Your task to perform on an android device: add a label to a message in the gmail app Image 0: 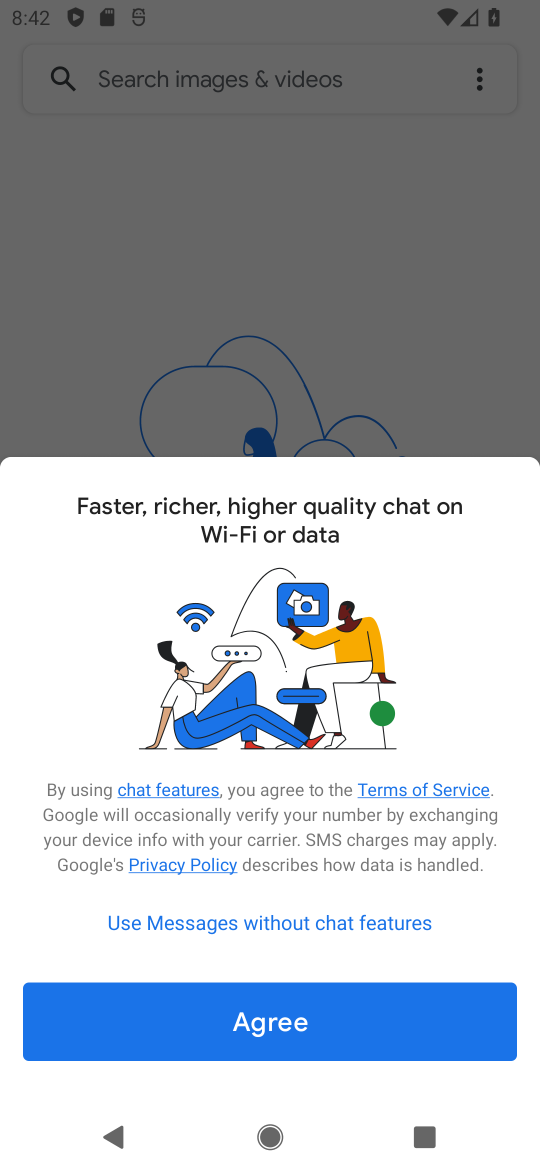
Step 0: press home button
Your task to perform on an android device: add a label to a message in the gmail app Image 1: 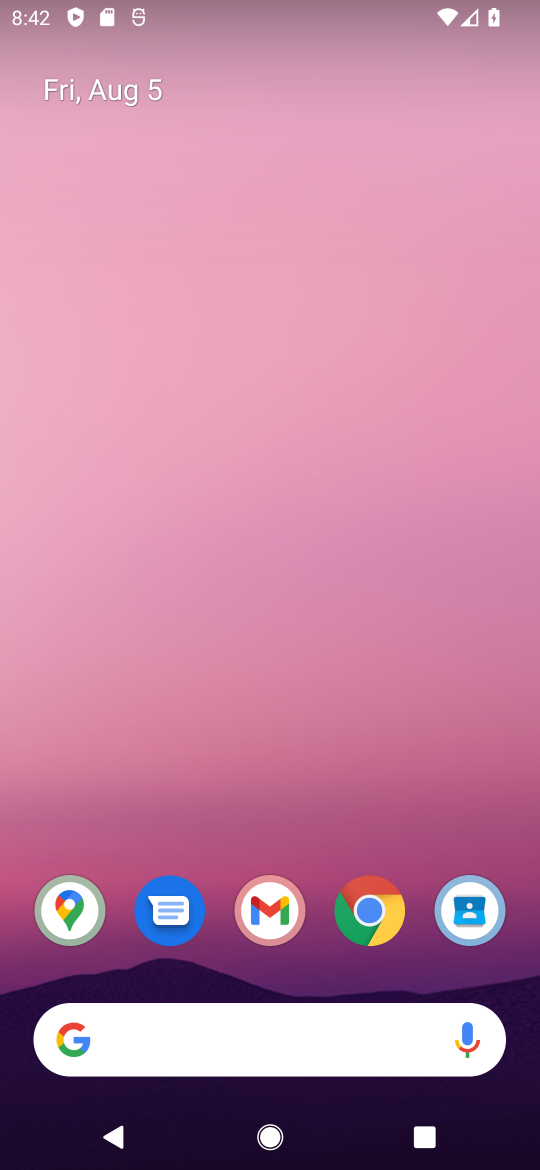
Step 1: click (272, 913)
Your task to perform on an android device: add a label to a message in the gmail app Image 2: 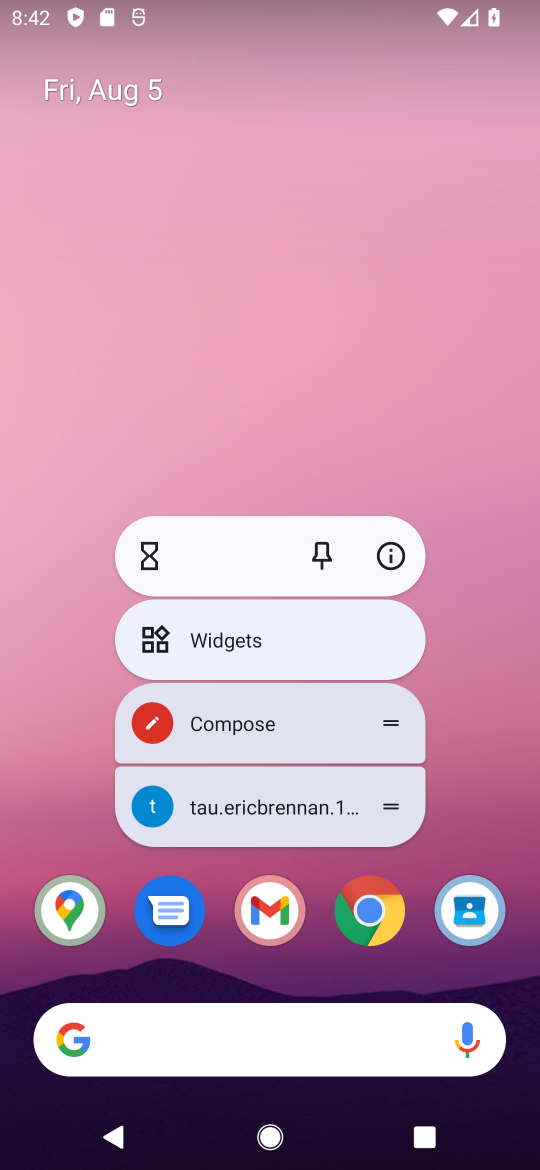
Step 2: click (272, 912)
Your task to perform on an android device: add a label to a message in the gmail app Image 3: 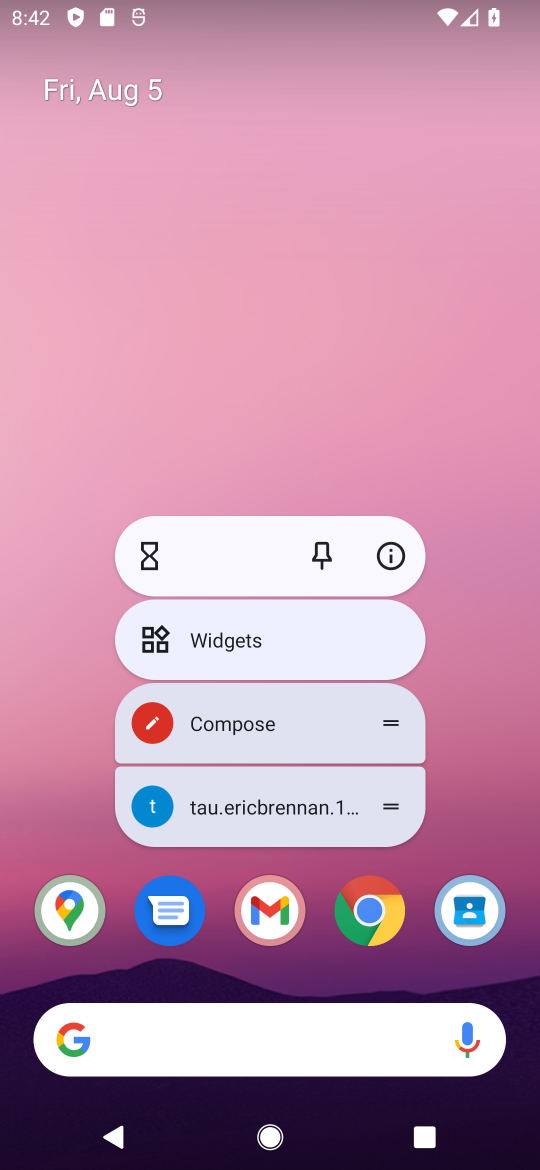
Step 3: click (272, 912)
Your task to perform on an android device: add a label to a message in the gmail app Image 4: 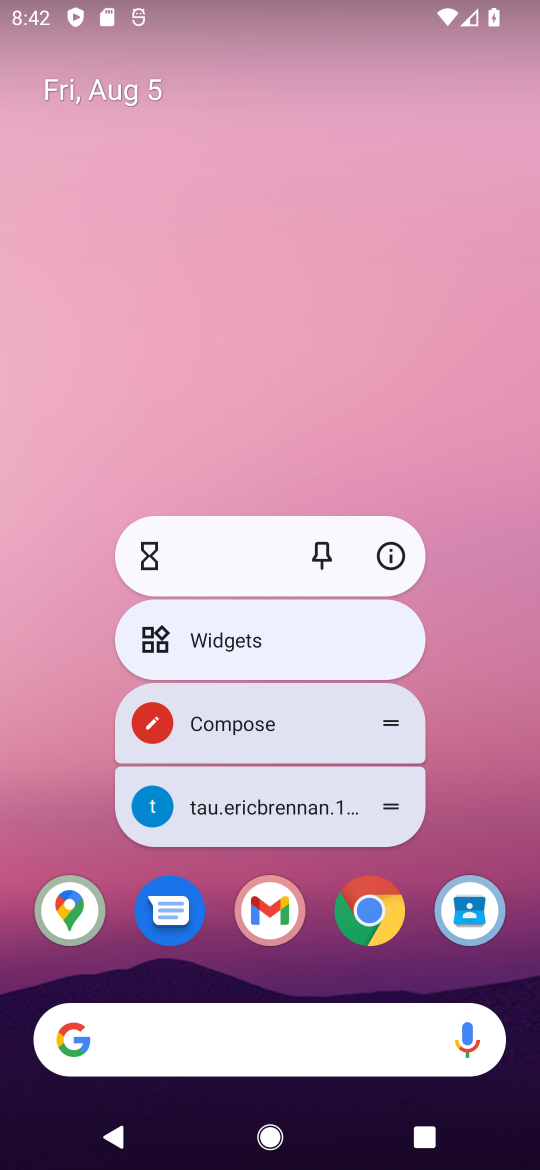
Step 4: click (272, 913)
Your task to perform on an android device: add a label to a message in the gmail app Image 5: 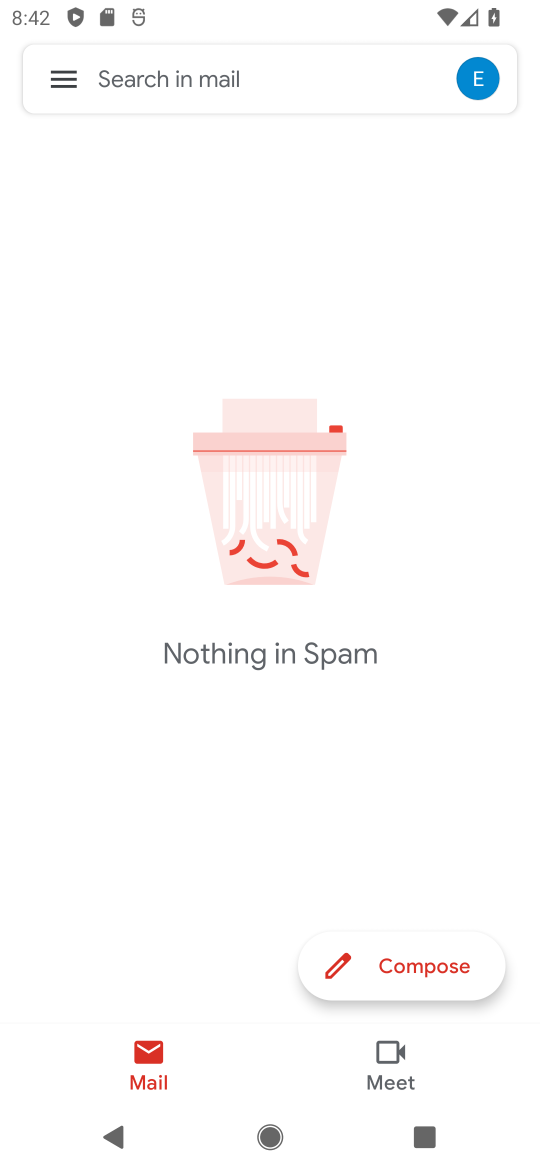
Step 5: click (74, 74)
Your task to perform on an android device: add a label to a message in the gmail app Image 6: 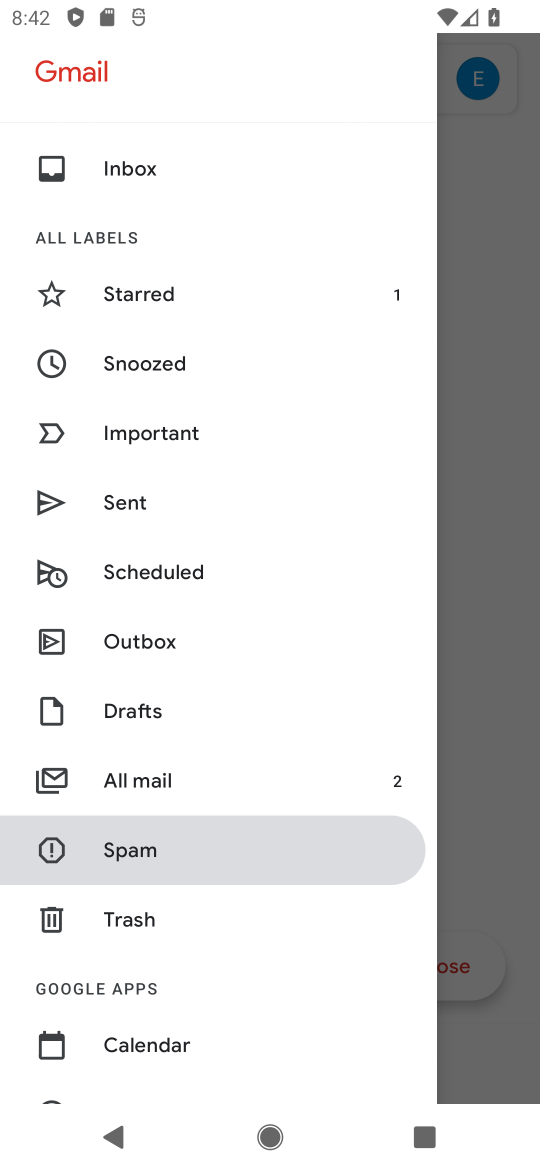
Step 6: click (158, 762)
Your task to perform on an android device: add a label to a message in the gmail app Image 7: 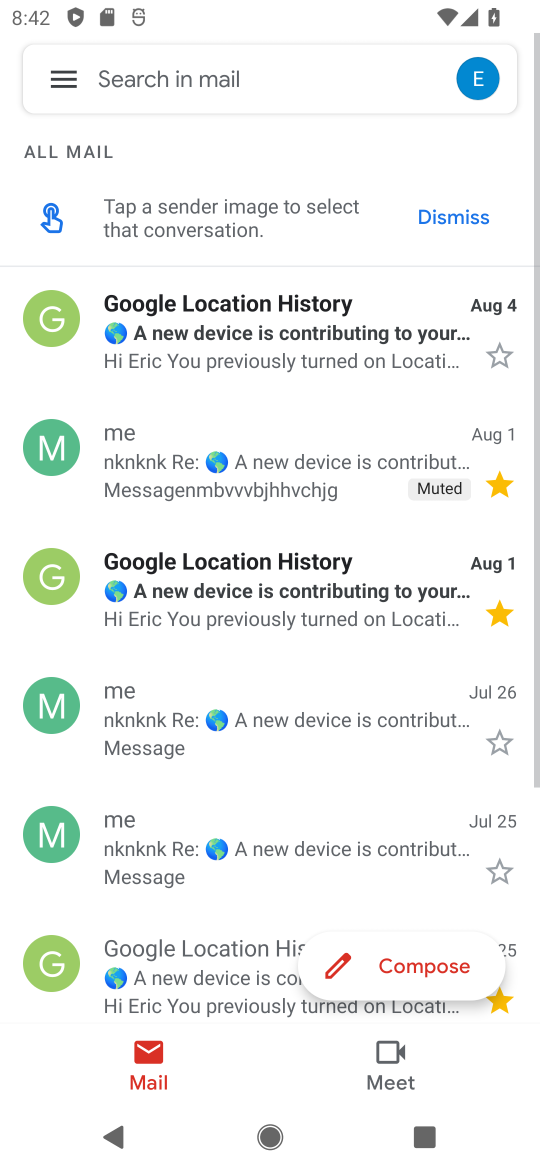
Step 7: click (263, 345)
Your task to perform on an android device: add a label to a message in the gmail app Image 8: 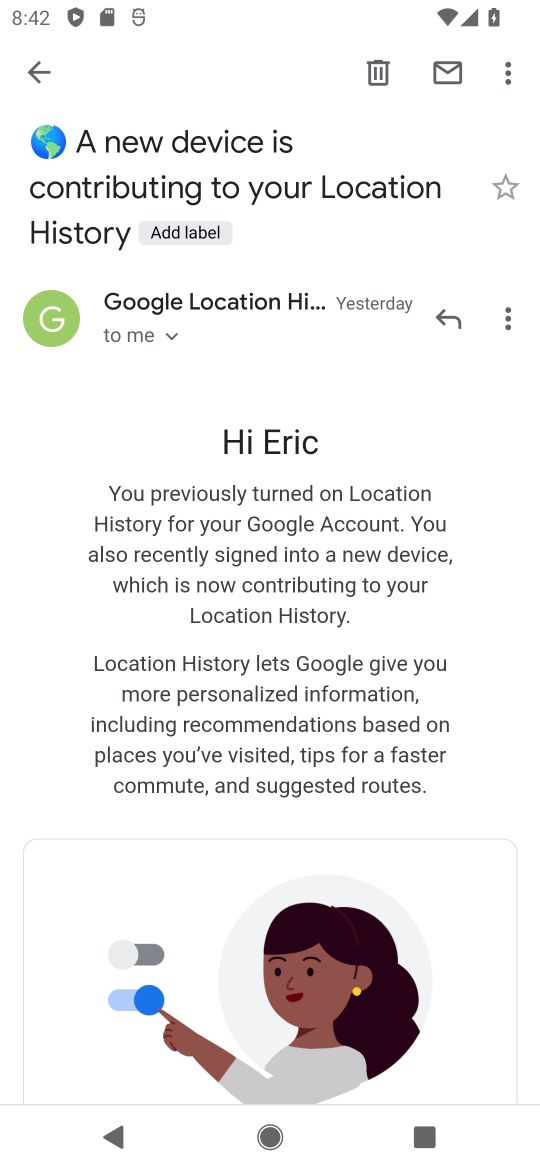
Step 8: click (193, 233)
Your task to perform on an android device: add a label to a message in the gmail app Image 9: 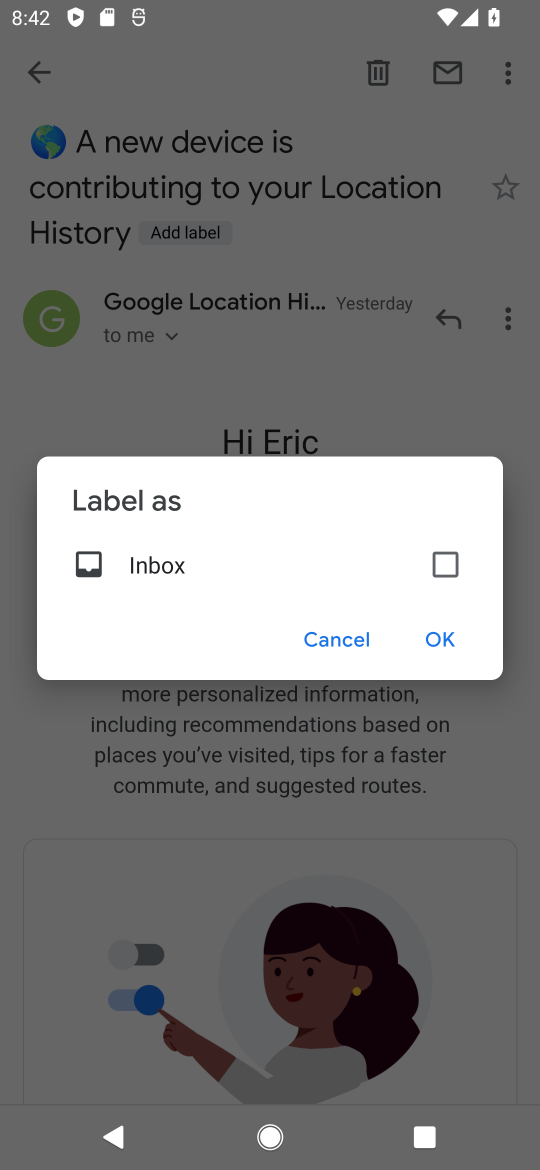
Step 9: click (445, 554)
Your task to perform on an android device: add a label to a message in the gmail app Image 10: 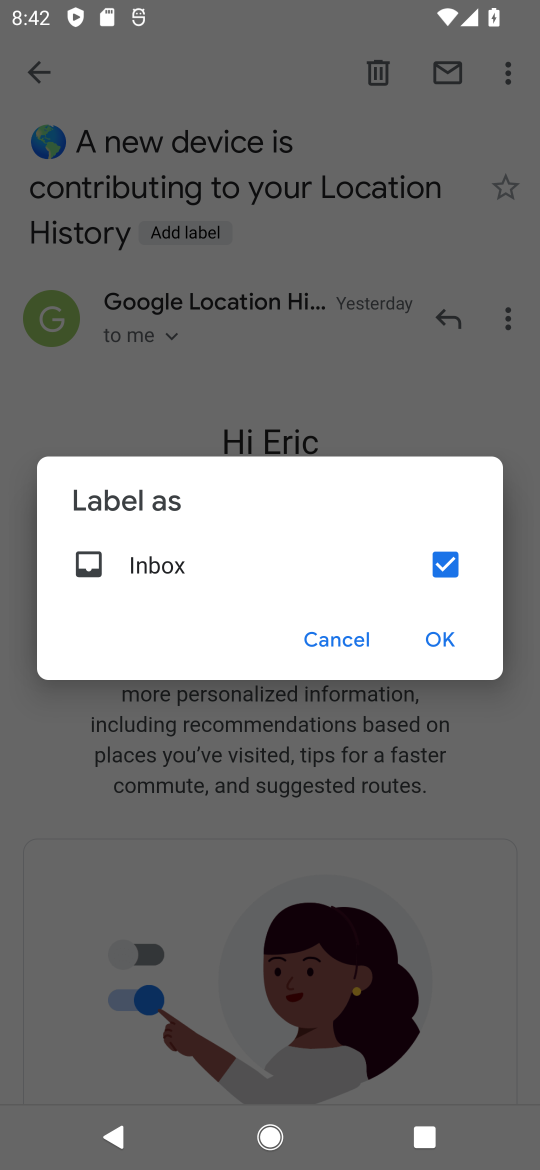
Step 10: click (444, 640)
Your task to perform on an android device: add a label to a message in the gmail app Image 11: 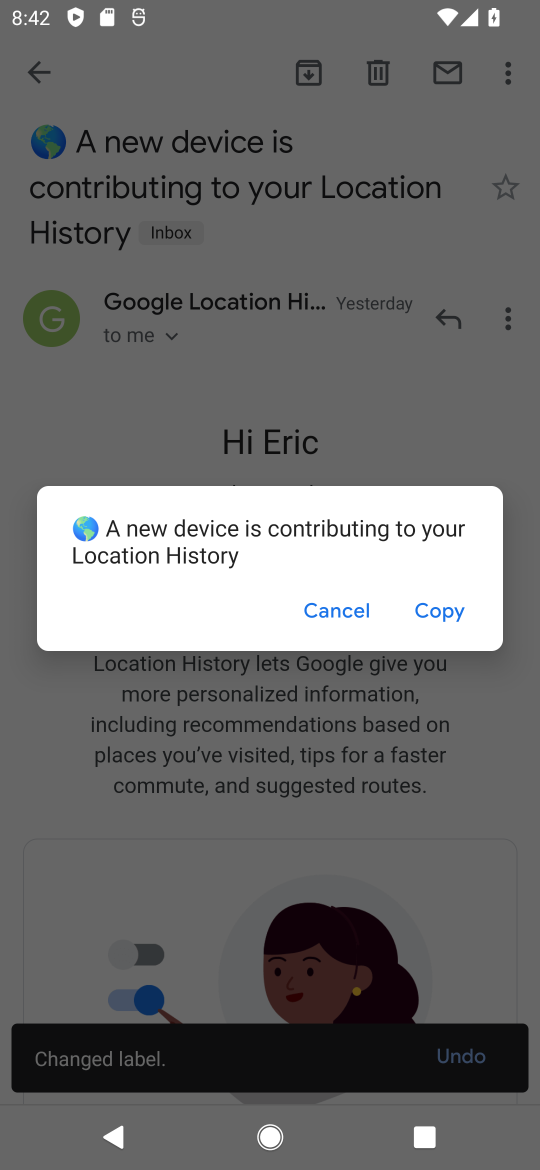
Step 11: click (358, 618)
Your task to perform on an android device: add a label to a message in the gmail app Image 12: 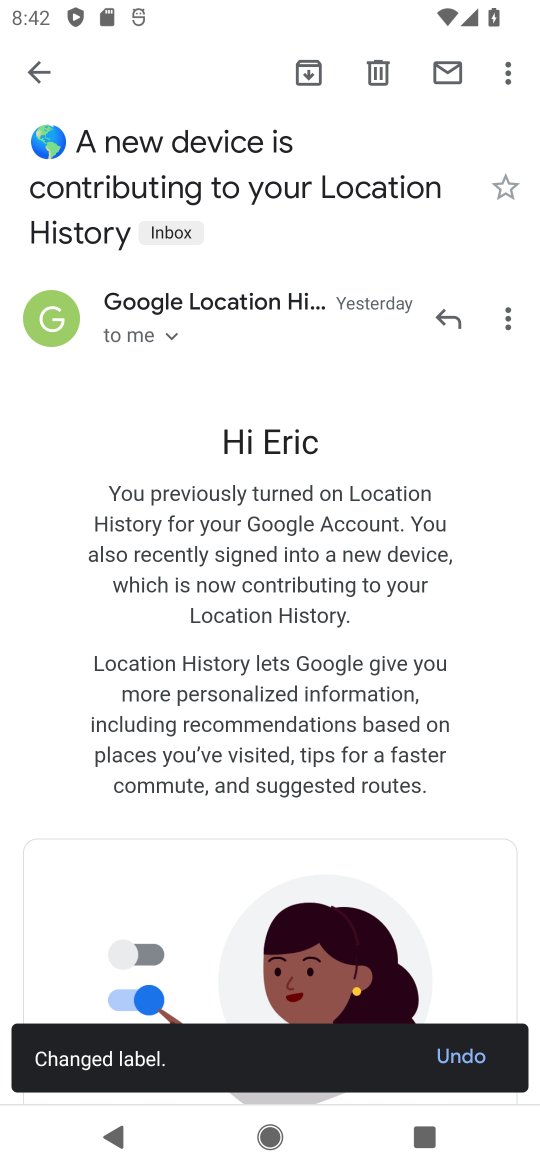
Step 12: task complete